Your task to perform on an android device: turn on showing notifications on the lock screen Image 0: 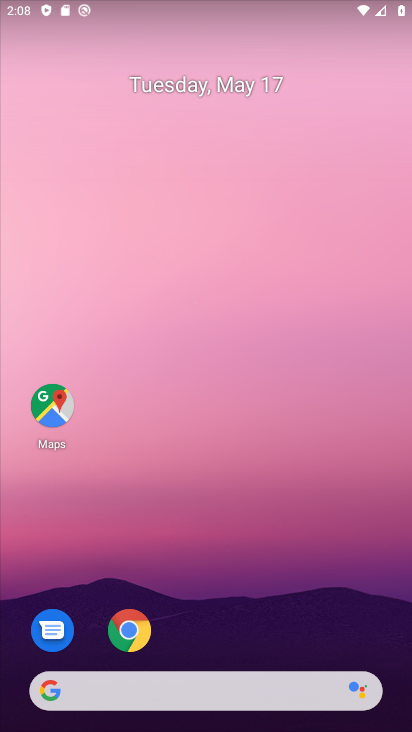
Step 0: drag from (355, 655) to (182, 1)
Your task to perform on an android device: turn on showing notifications on the lock screen Image 1: 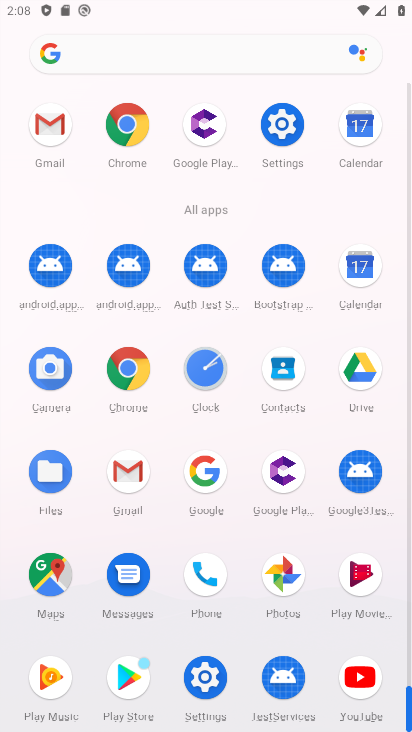
Step 1: click (273, 113)
Your task to perform on an android device: turn on showing notifications on the lock screen Image 2: 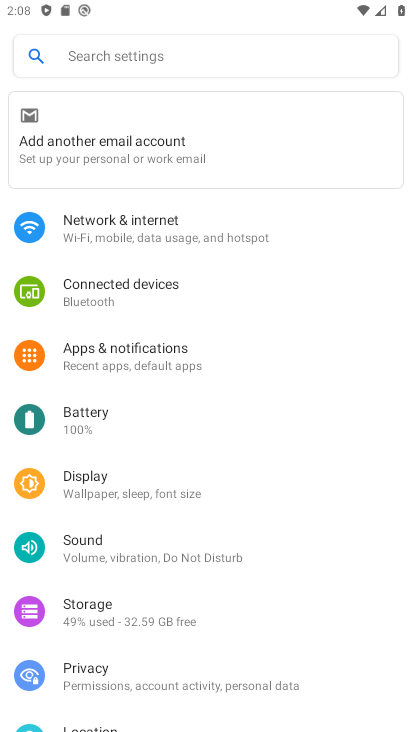
Step 2: click (109, 348)
Your task to perform on an android device: turn on showing notifications on the lock screen Image 3: 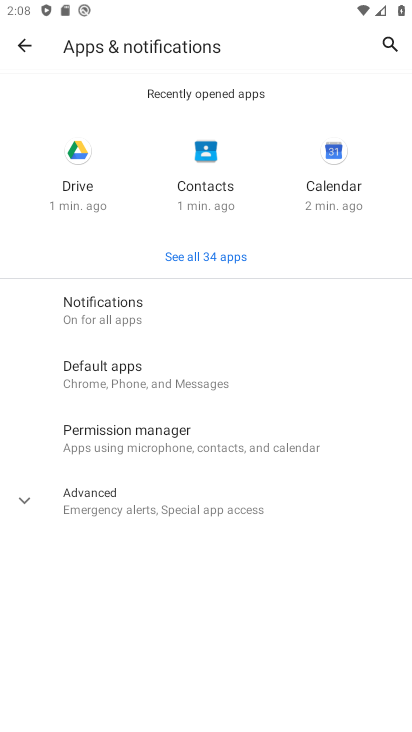
Step 3: click (81, 298)
Your task to perform on an android device: turn on showing notifications on the lock screen Image 4: 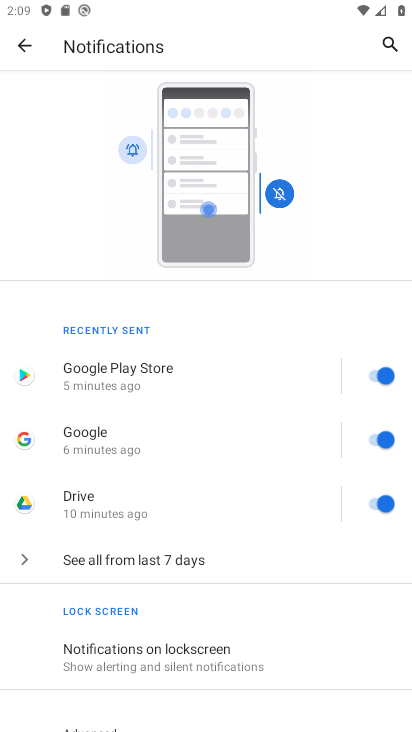
Step 4: click (124, 651)
Your task to perform on an android device: turn on showing notifications on the lock screen Image 5: 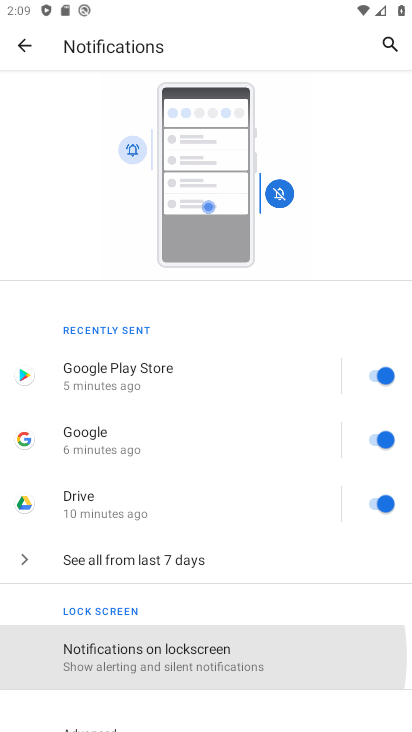
Step 5: click (124, 650)
Your task to perform on an android device: turn on showing notifications on the lock screen Image 6: 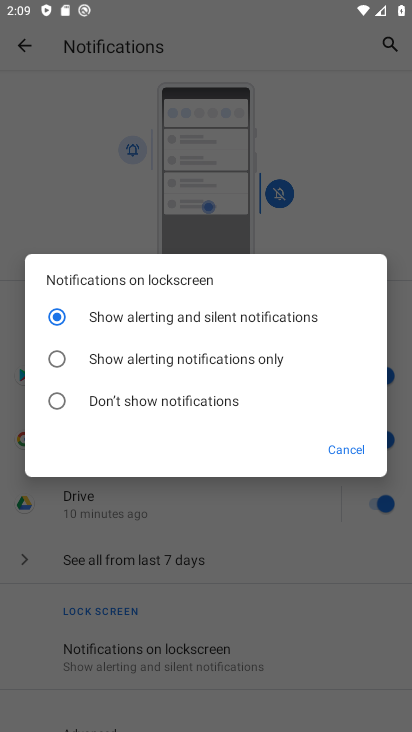
Step 6: click (129, 650)
Your task to perform on an android device: turn on showing notifications on the lock screen Image 7: 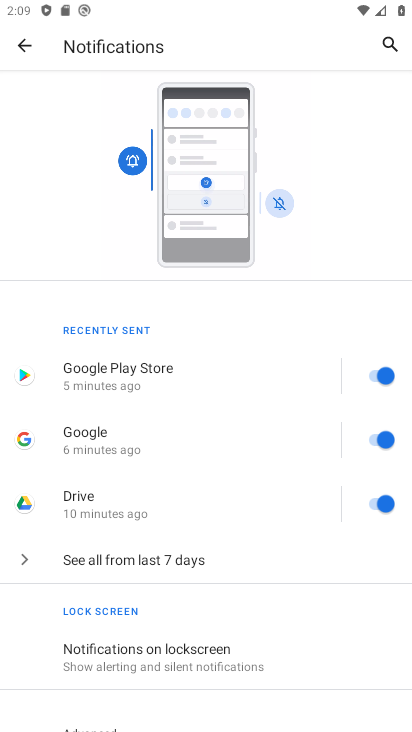
Step 7: task complete